Your task to perform on an android device: toggle javascript in the chrome app Image 0: 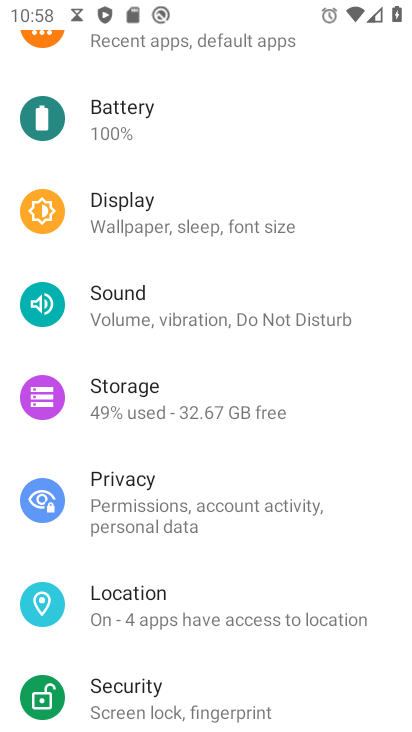
Step 0: press home button
Your task to perform on an android device: toggle javascript in the chrome app Image 1: 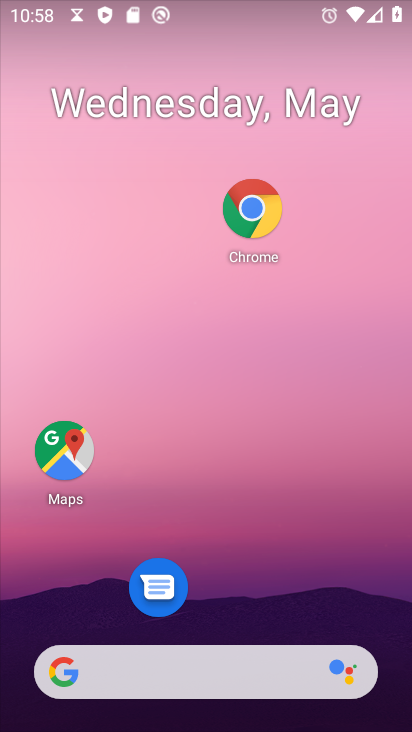
Step 1: click (246, 213)
Your task to perform on an android device: toggle javascript in the chrome app Image 2: 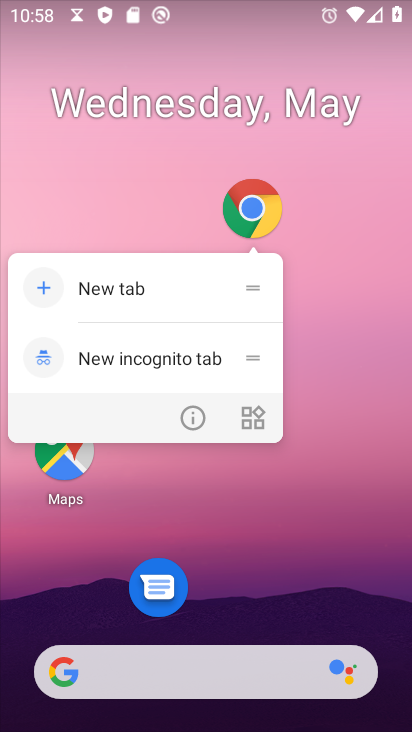
Step 2: click (246, 231)
Your task to perform on an android device: toggle javascript in the chrome app Image 3: 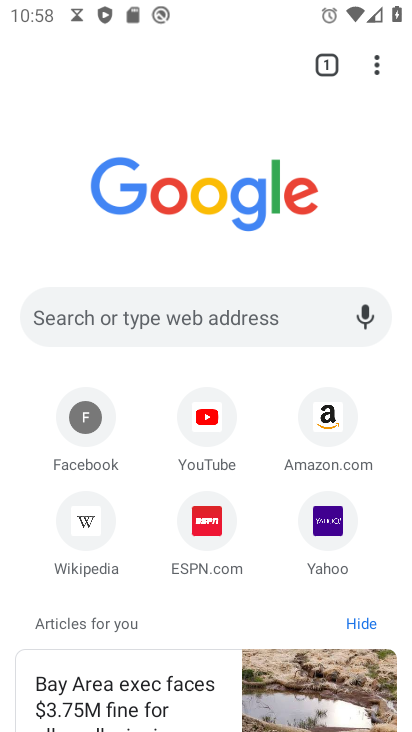
Step 3: click (373, 68)
Your task to perform on an android device: toggle javascript in the chrome app Image 4: 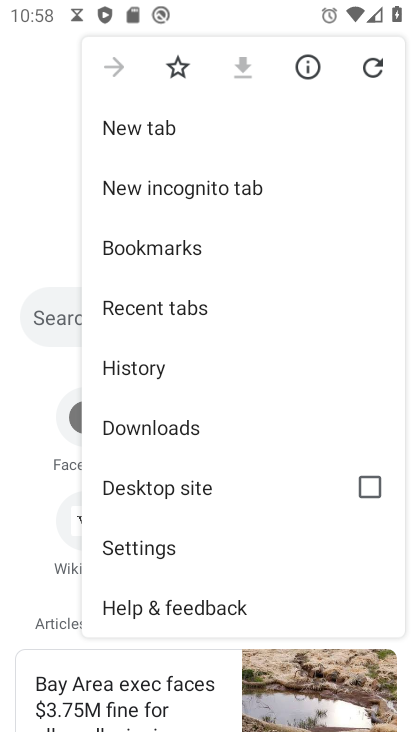
Step 4: click (156, 547)
Your task to perform on an android device: toggle javascript in the chrome app Image 5: 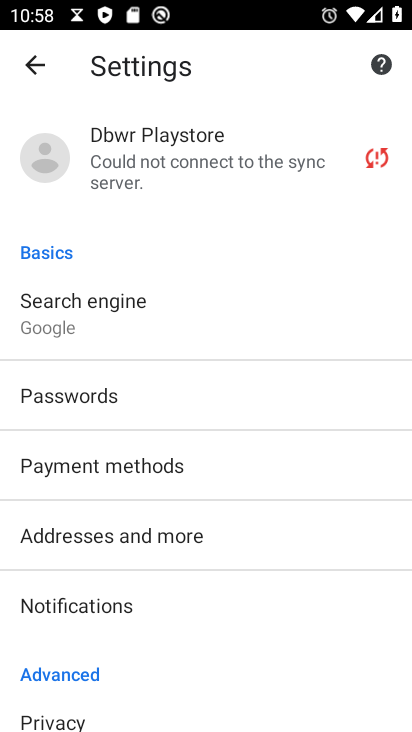
Step 5: drag from (136, 553) to (152, 510)
Your task to perform on an android device: toggle javascript in the chrome app Image 6: 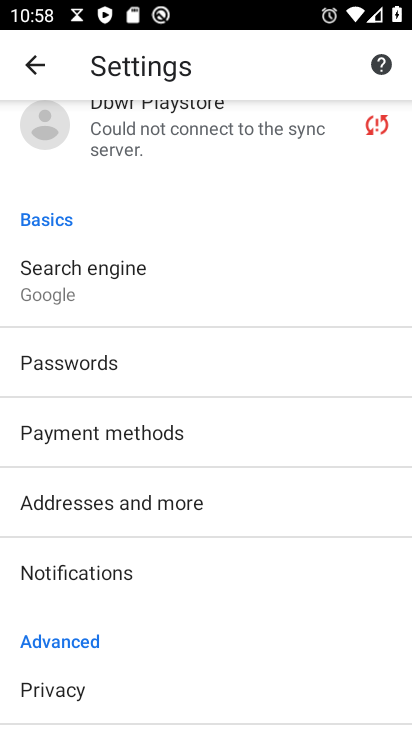
Step 6: drag from (165, 634) to (264, 356)
Your task to perform on an android device: toggle javascript in the chrome app Image 7: 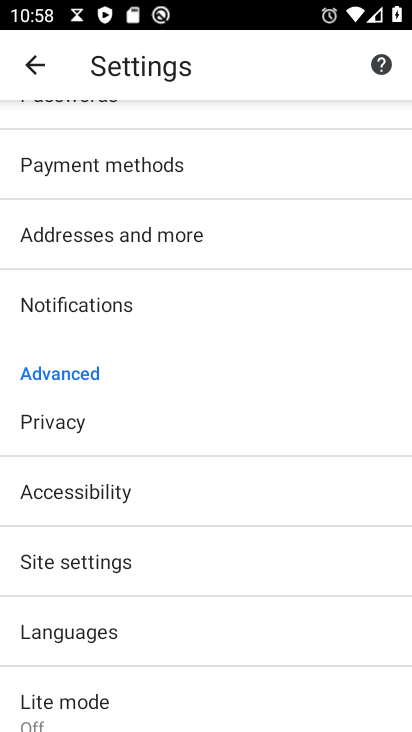
Step 7: click (71, 563)
Your task to perform on an android device: toggle javascript in the chrome app Image 8: 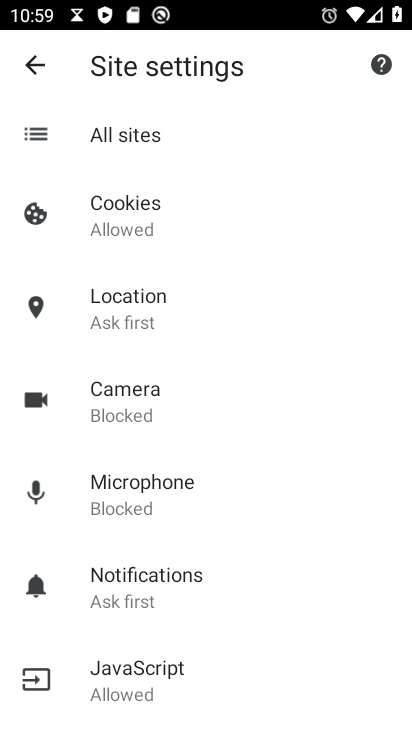
Step 8: click (148, 693)
Your task to perform on an android device: toggle javascript in the chrome app Image 9: 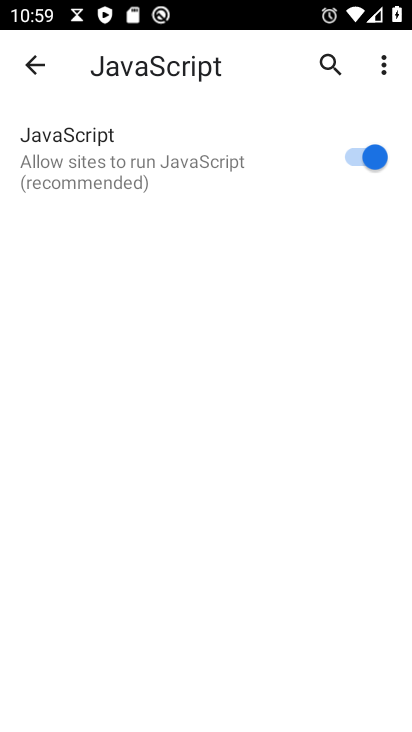
Step 9: click (358, 168)
Your task to perform on an android device: toggle javascript in the chrome app Image 10: 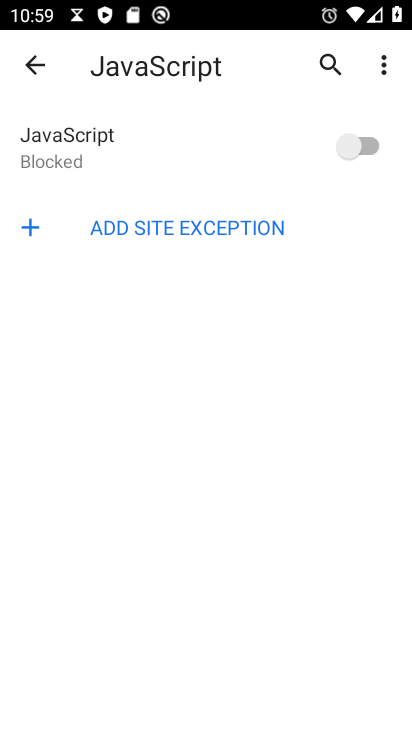
Step 10: task complete